Your task to perform on an android device: see sites visited before in the chrome app Image 0: 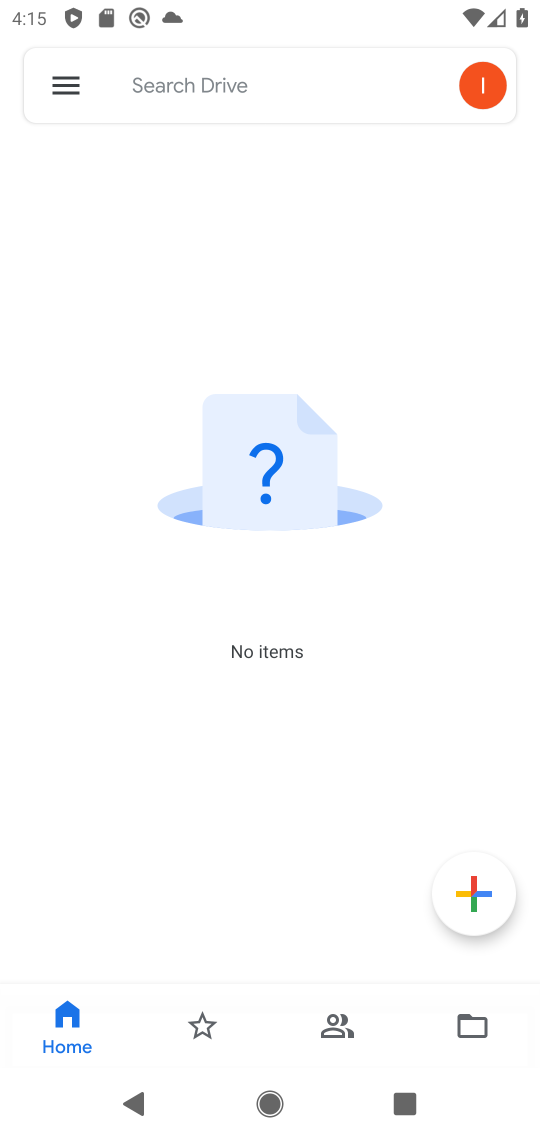
Step 0: press home button
Your task to perform on an android device: see sites visited before in the chrome app Image 1: 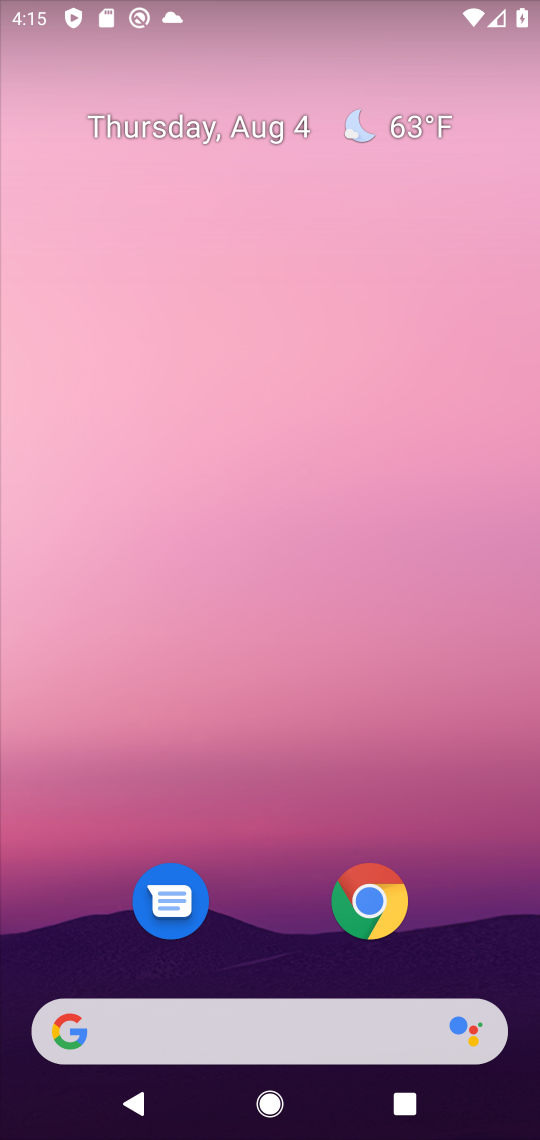
Step 1: drag from (267, 820) to (339, 0)
Your task to perform on an android device: see sites visited before in the chrome app Image 2: 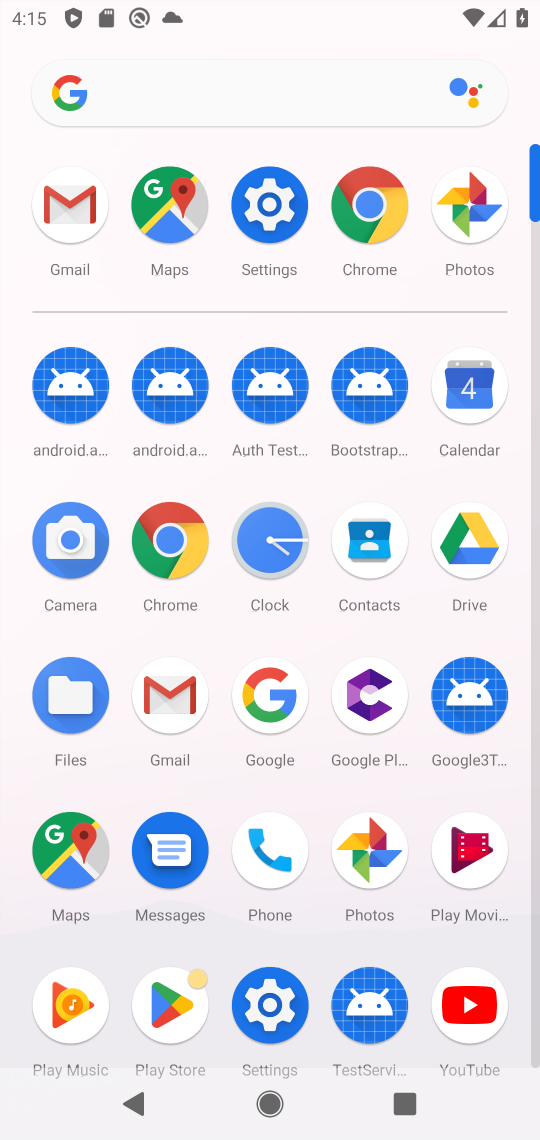
Step 2: click (375, 205)
Your task to perform on an android device: see sites visited before in the chrome app Image 3: 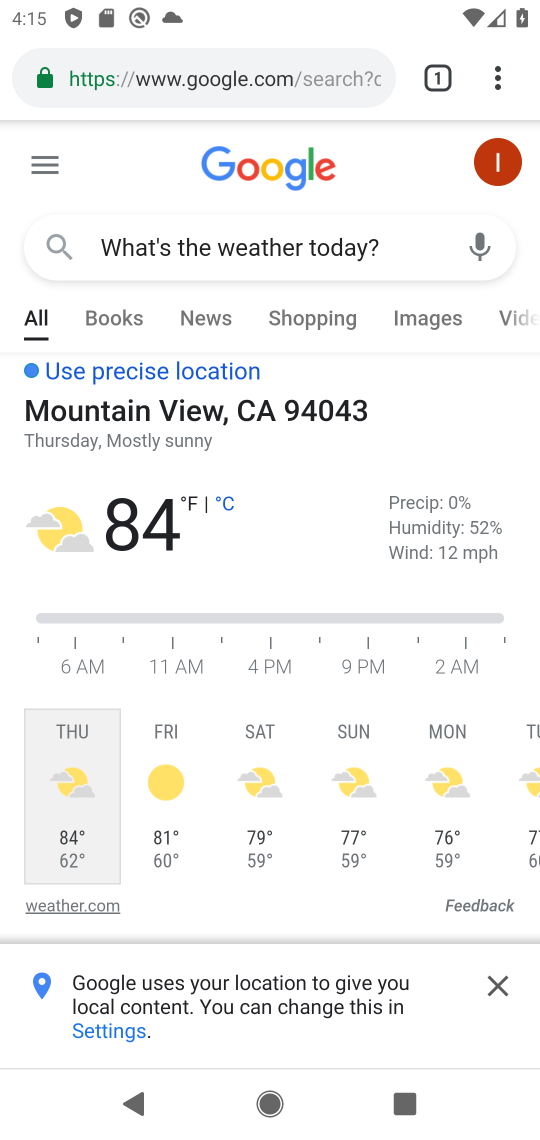
Step 3: drag from (486, 72) to (211, 537)
Your task to perform on an android device: see sites visited before in the chrome app Image 4: 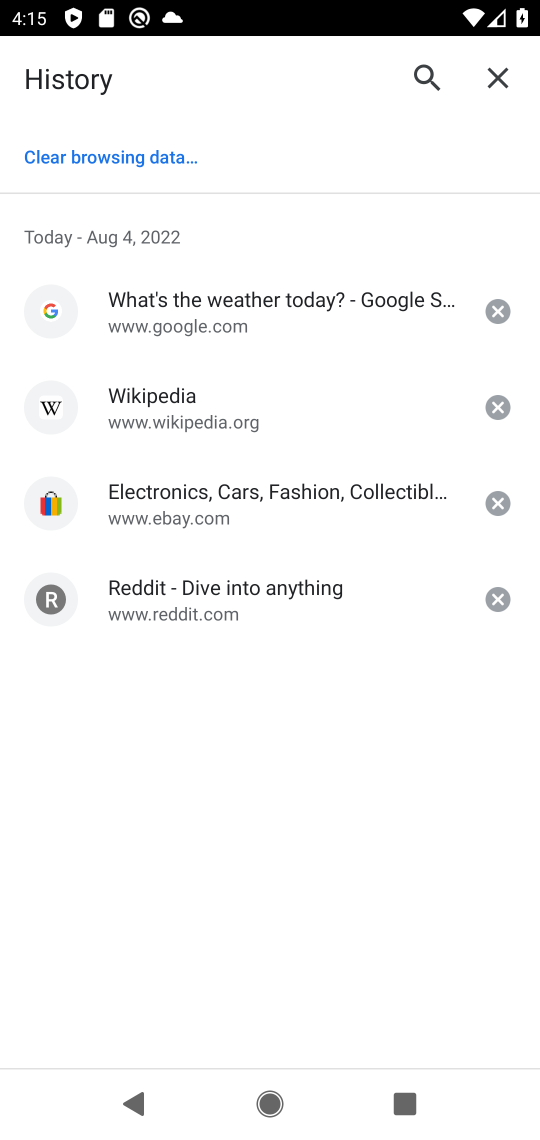
Step 4: click (225, 301)
Your task to perform on an android device: see sites visited before in the chrome app Image 5: 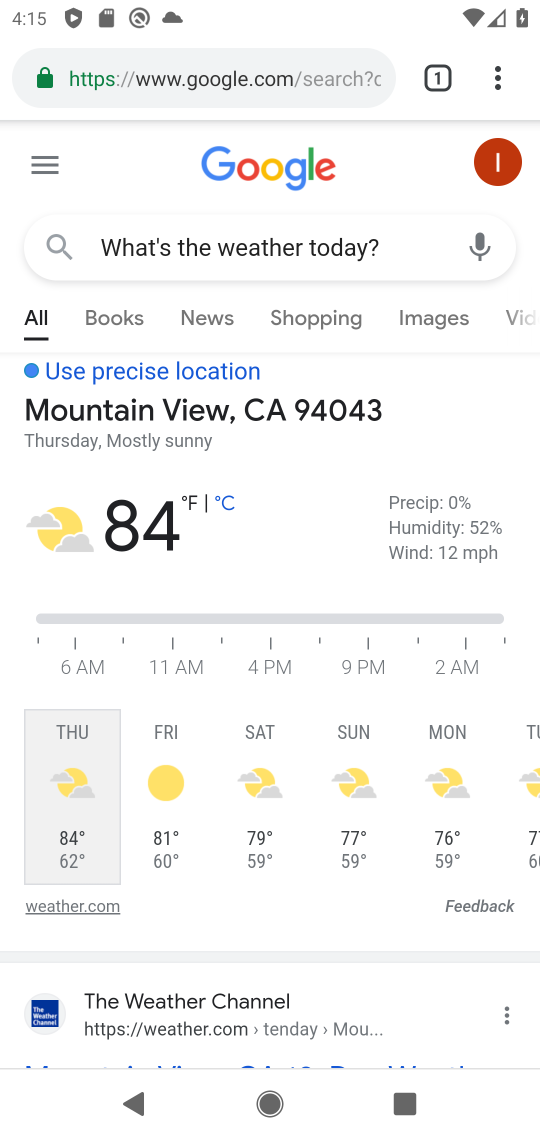
Step 5: task complete